Your task to perform on an android device: make emails show in primary in the gmail app Image 0: 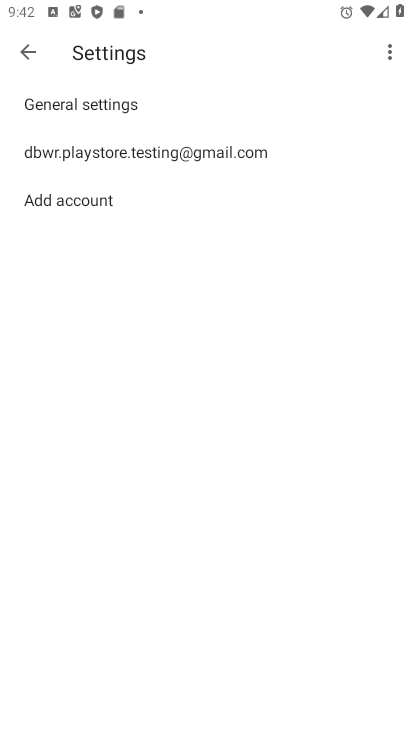
Step 0: press home button
Your task to perform on an android device: make emails show in primary in the gmail app Image 1: 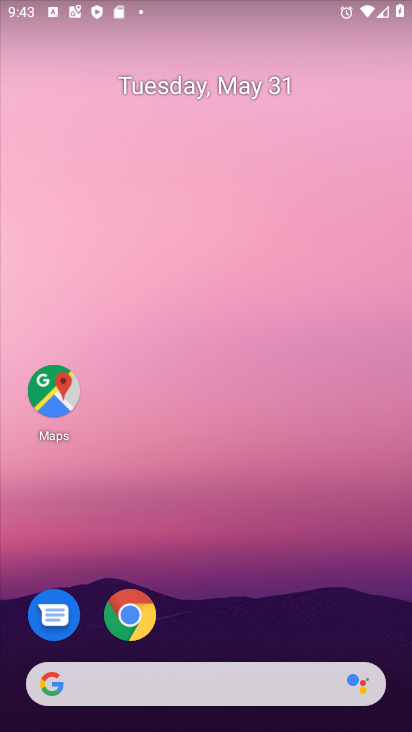
Step 1: drag from (348, 626) to (313, 117)
Your task to perform on an android device: make emails show in primary in the gmail app Image 2: 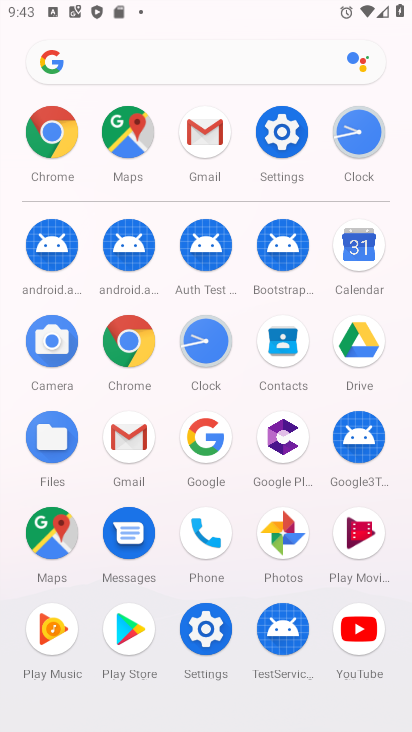
Step 2: click (127, 439)
Your task to perform on an android device: make emails show in primary in the gmail app Image 3: 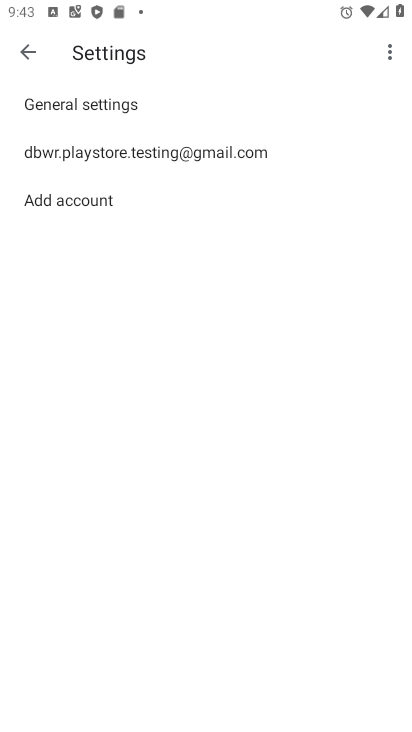
Step 3: click (129, 137)
Your task to perform on an android device: make emails show in primary in the gmail app Image 4: 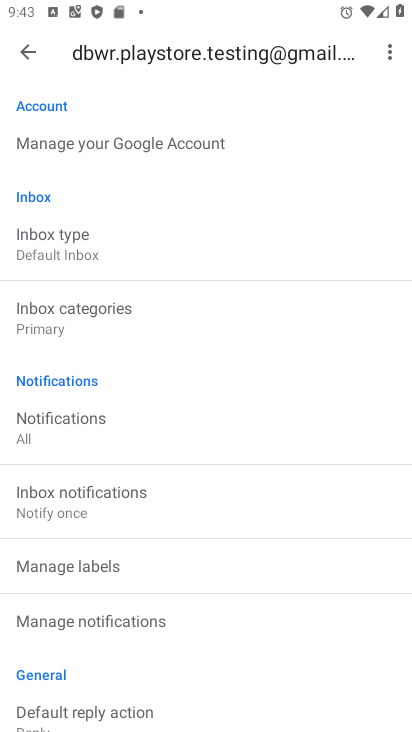
Step 4: click (46, 258)
Your task to perform on an android device: make emails show in primary in the gmail app Image 5: 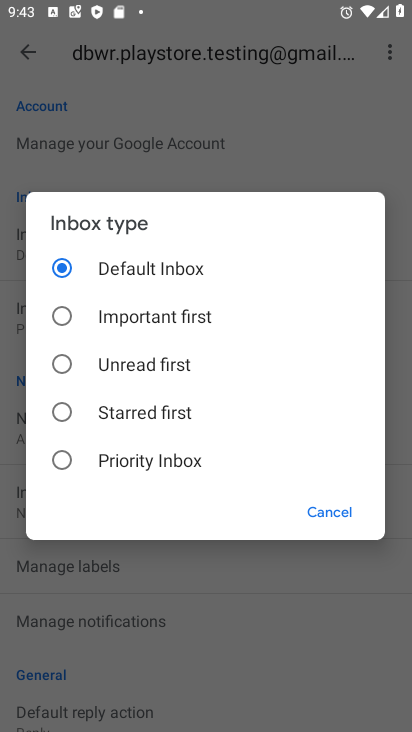
Step 5: click (314, 512)
Your task to perform on an android device: make emails show in primary in the gmail app Image 6: 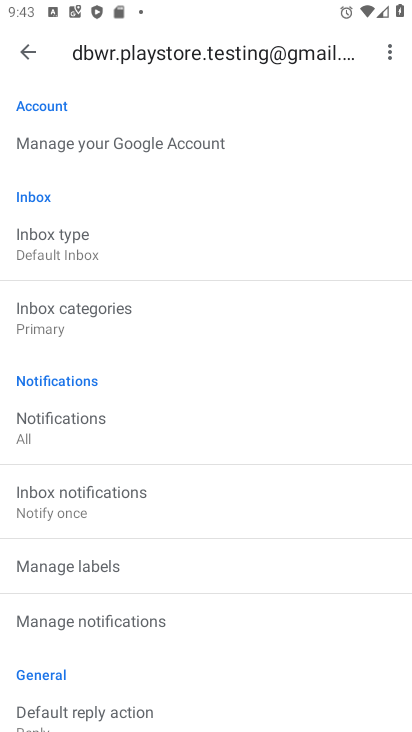
Step 6: click (39, 309)
Your task to perform on an android device: make emails show in primary in the gmail app Image 7: 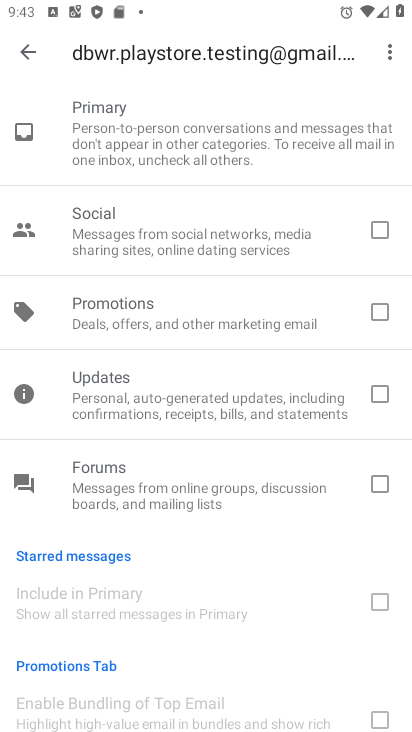
Step 7: task complete